Your task to perform on an android device: allow notifications from all sites in the chrome app Image 0: 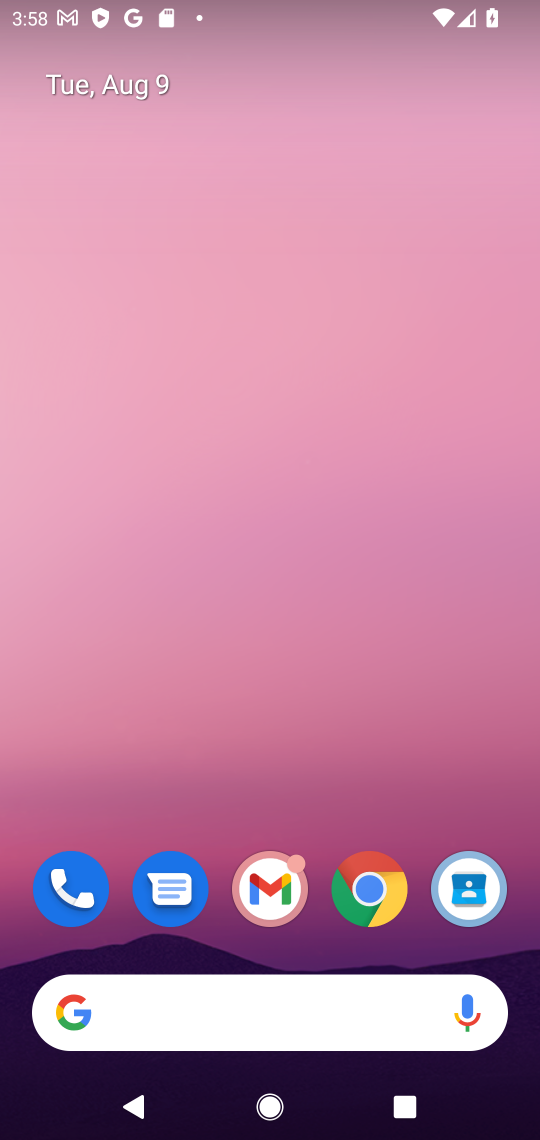
Step 0: drag from (263, 777) to (406, 0)
Your task to perform on an android device: allow notifications from all sites in the chrome app Image 1: 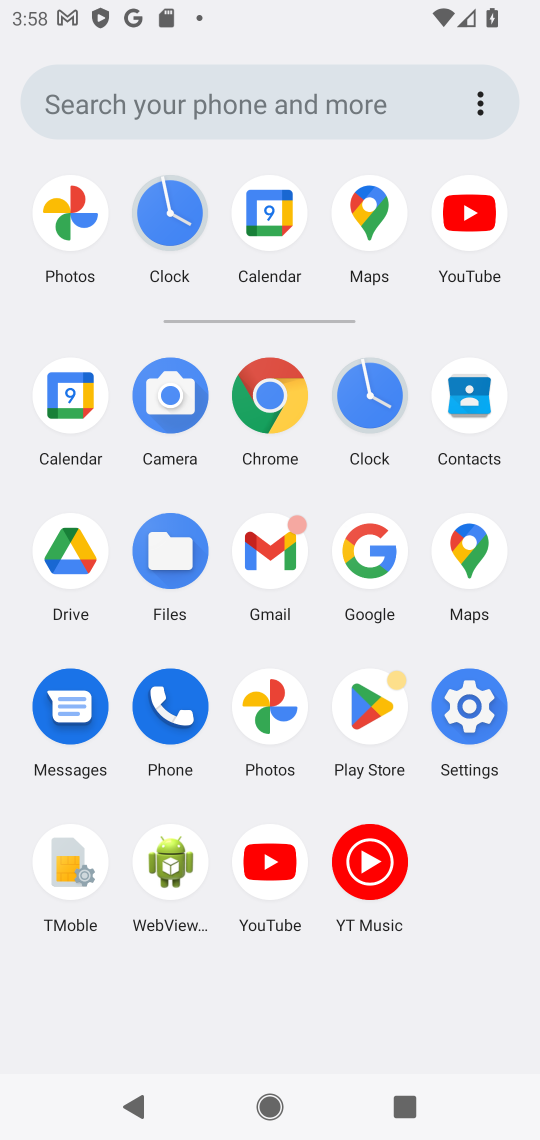
Step 1: press home button
Your task to perform on an android device: allow notifications from all sites in the chrome app Image 2: 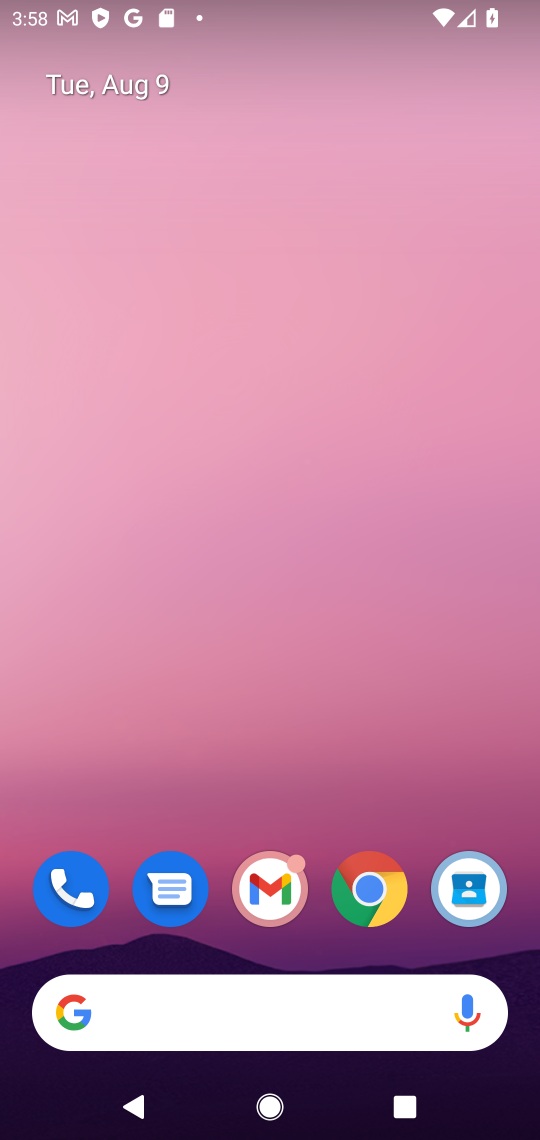
Step 2: click (375, 894)
Your task to perform on an android device: allow notifications from all sites in the chrome app Image 3: 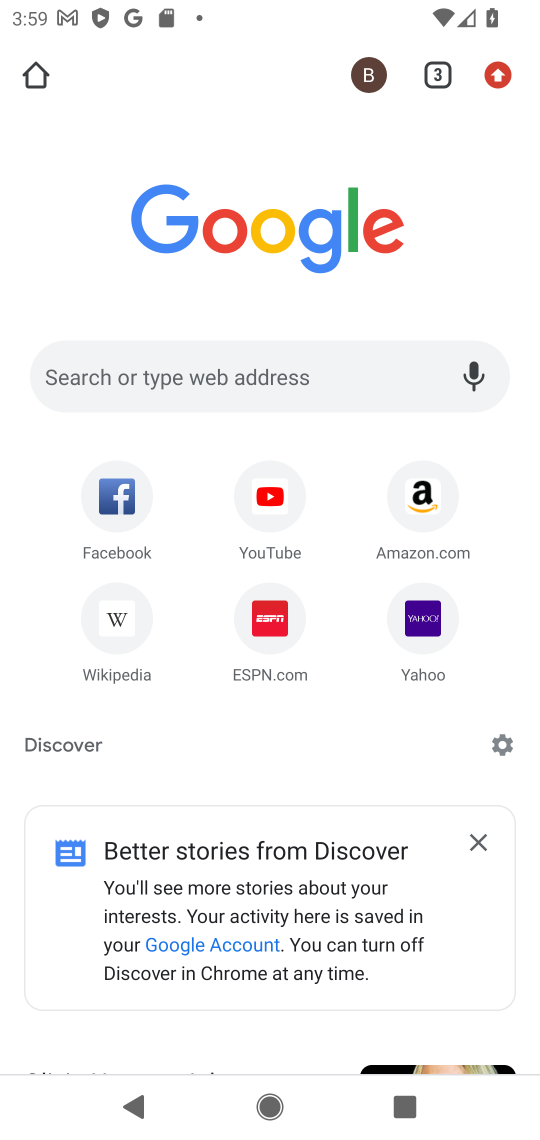
Step 3: click (503, 68)
Your task to perform on an android device: allow notifications from all sites in the chrome app Image 4: 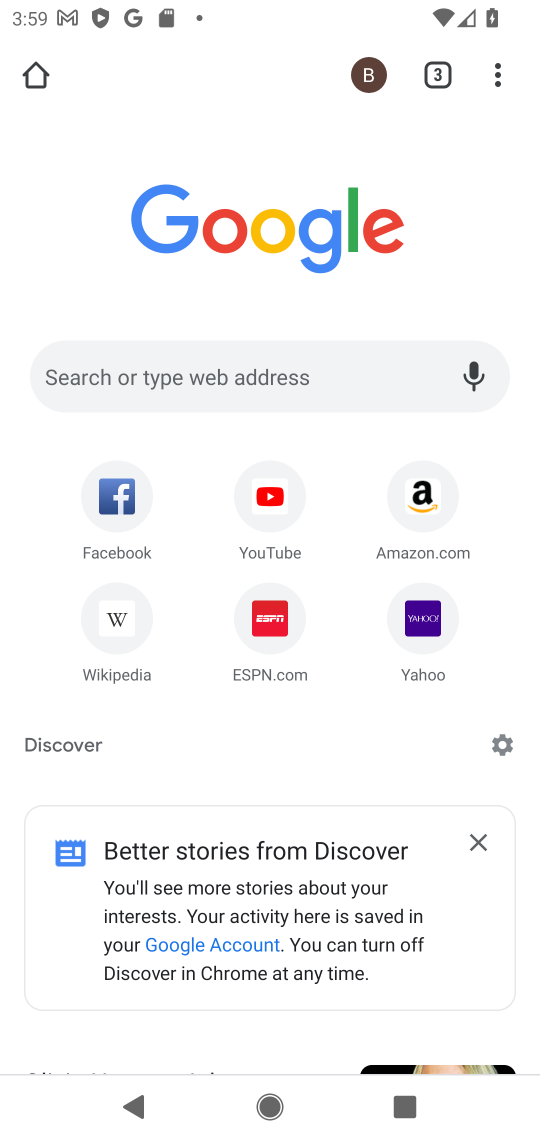
Step 4: click (503, 68)
Your task to perform on an android device: allow notifications from all sites in the chrome app Image 5: 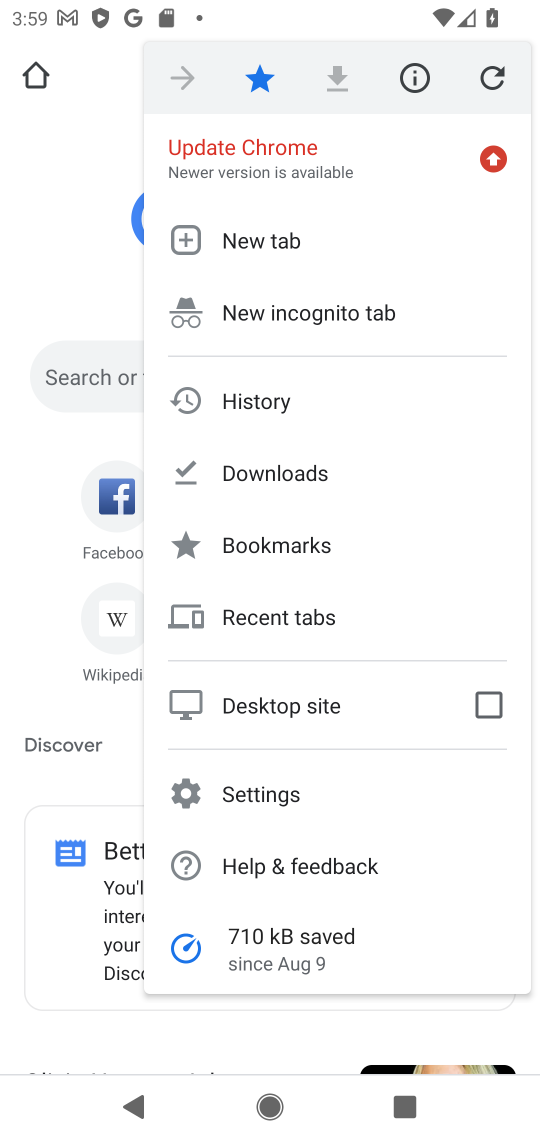
Step 5: click (302, 781)
Your task to perform on an android device: allow notifications from all sites in the chrome app Image 6: 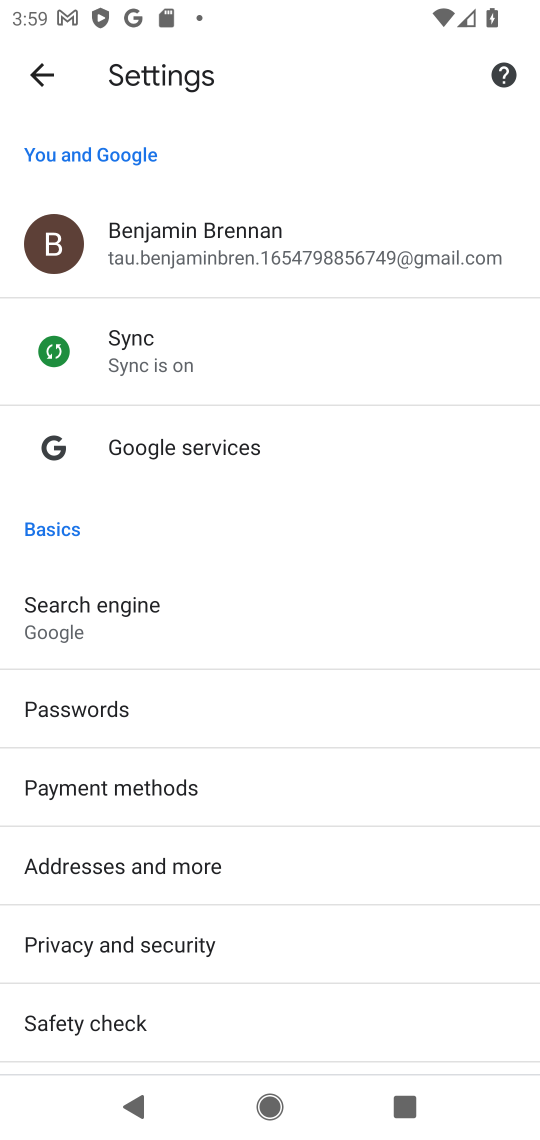
Step 6: drag from (292, 960) to (382, 236)
Your task to perform on an android device: allow notifications from all sites in the chrome app Image 7: 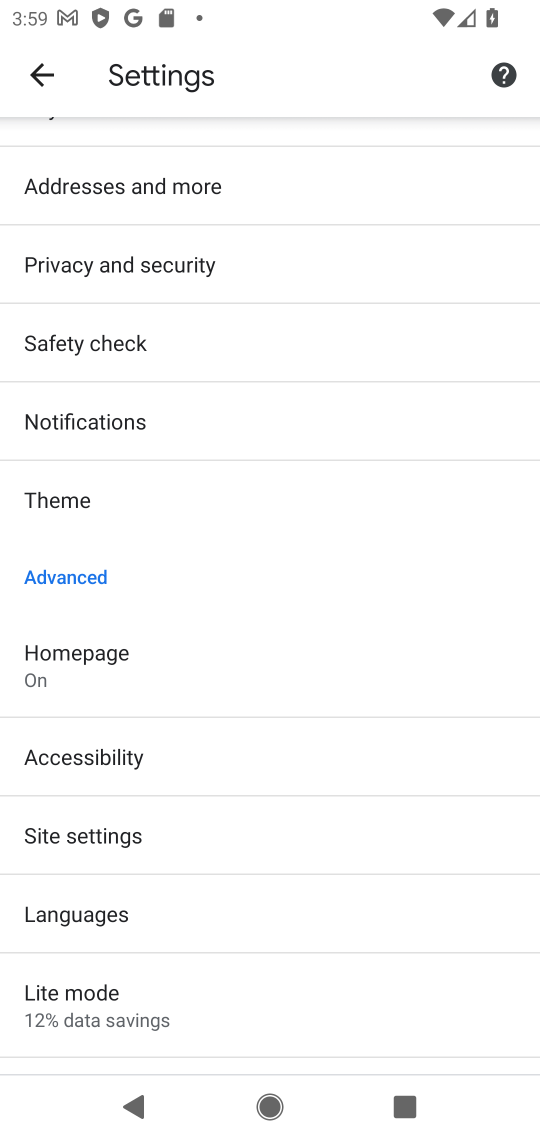
Step 7: click (318, 403)
Your task to perform on an android device: allow notifications from all sites in the chrome app Image 8: 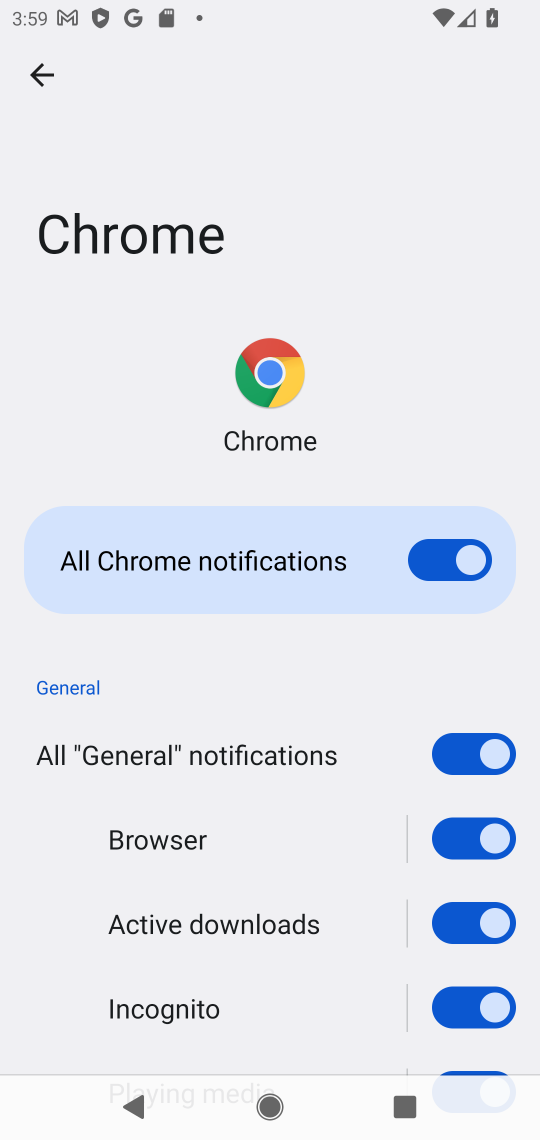
Step 8: task complete